Your task to perform on an android device: open a new tab in the chrome app Image 0: 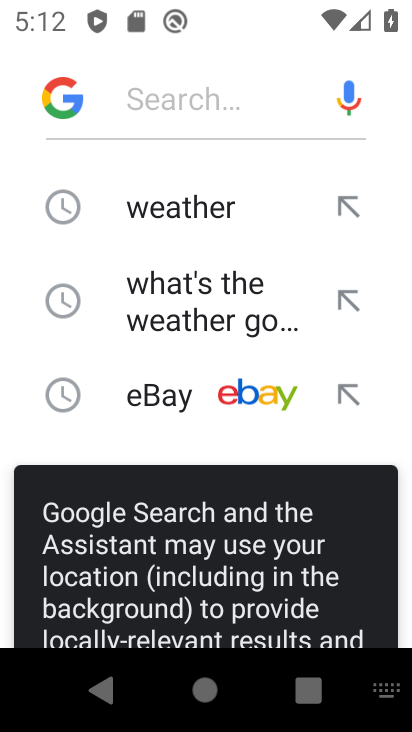
Step 0: press home button
Your task to perform on an android device: open a new tab in the chrome app Image 1: 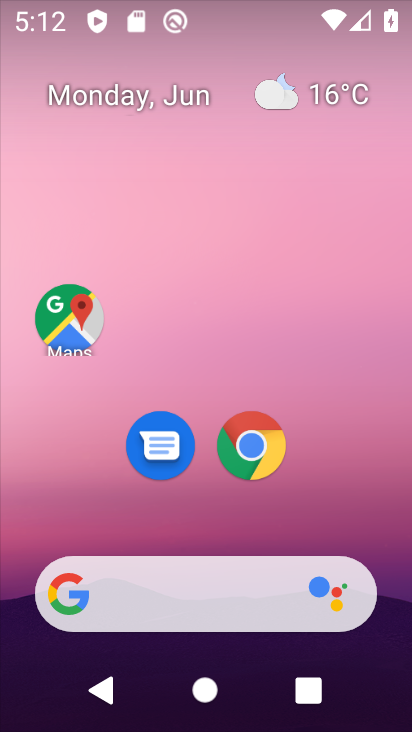
Step 1: click (253, 447)
Your task to perform on an android device: open a new tab in the chrome app Image 2: 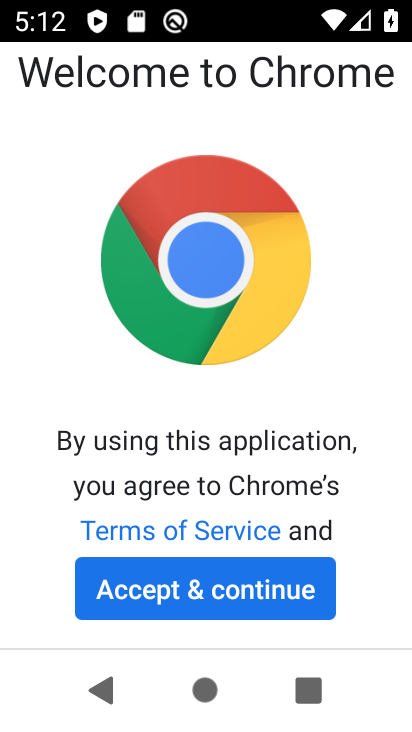
Step 2: click (224, 589)
Your task to perform on an android device: open a new tab in the chrome app Image 3: 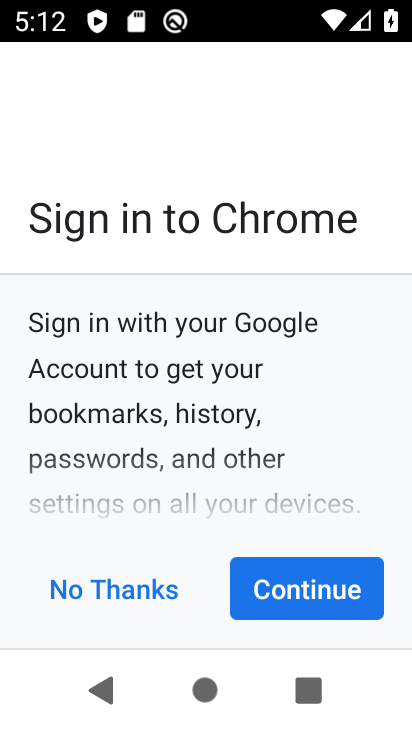
Step 3: click (282, 587)
Your task to perform on an android device: open a new tab in the chrome app Image 4: 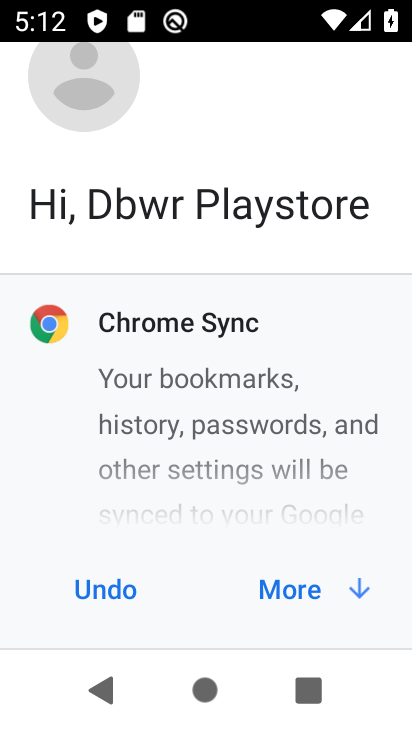
Step 4: click (282, 587)
Your task to perform on an android device: open a new tab in the chrome app Image 5: 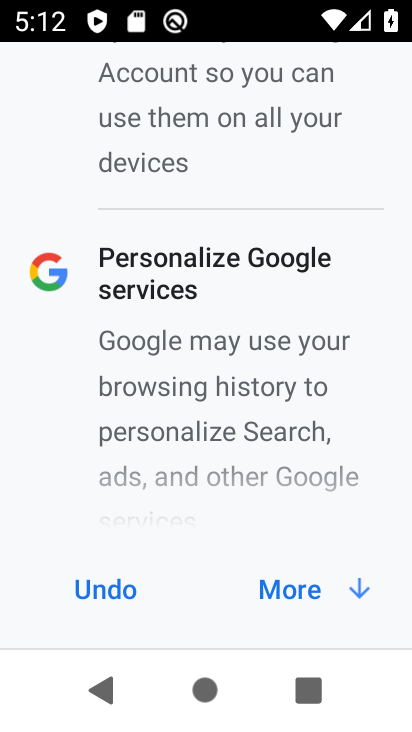
Step 5: click (282, 587)
Your task to perform on an android device: open a new tab in the chrome app Image 6: 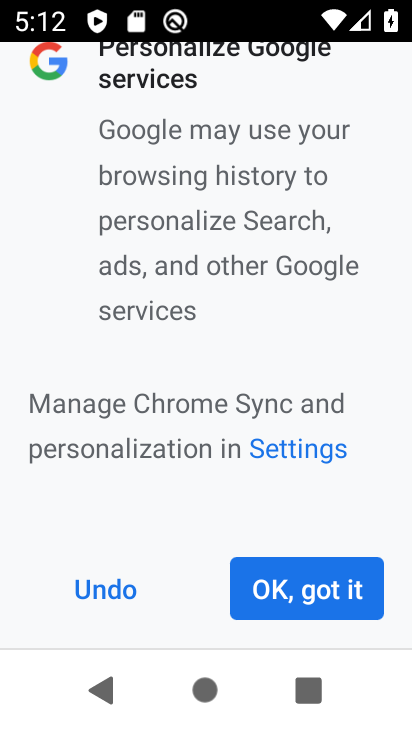
Step 6: click (282, 587)
Your task to perform on an android device: open a new tab in the chrome app Image 7: 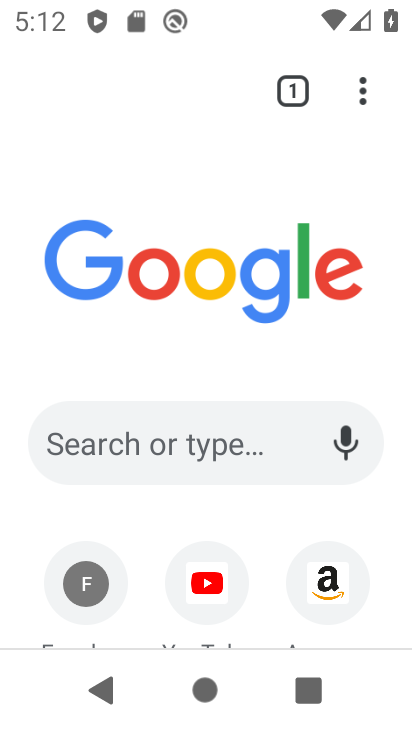
Step 7: click (363, 93)
Your task to perform on an android device: open a new tab in the chrome app Image 8: 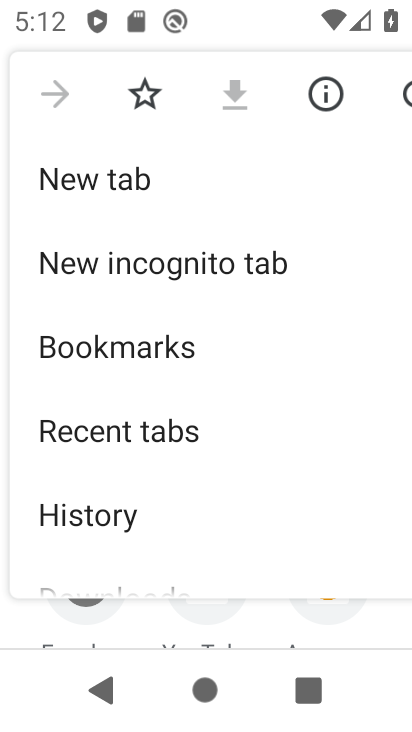
Step 8: click (151, 180)
Your task to perform on an android device: open a new tab in the chrome app Image 9: 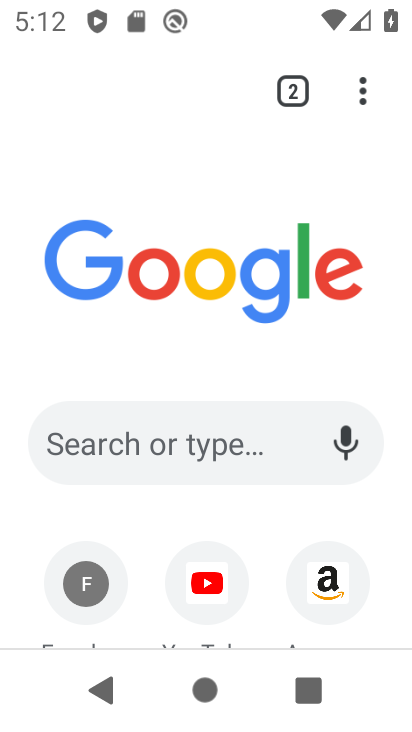
Step 9: task complete